Your task to perform on an android device: toggle wifi Image 0: 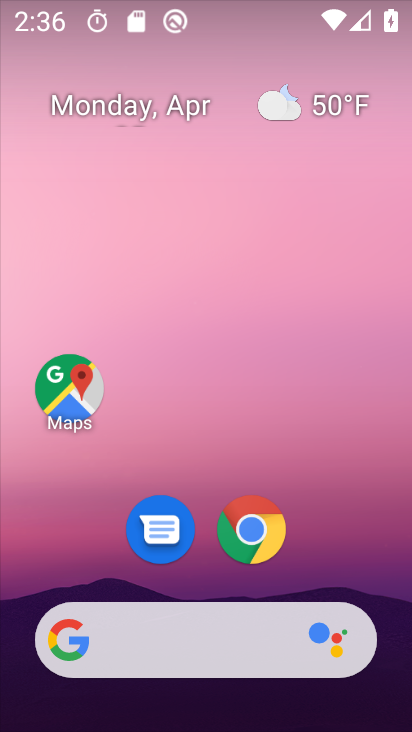
Step 0: click (348, 168)
Your task to perform on an android device: toggle wifi Image 1: 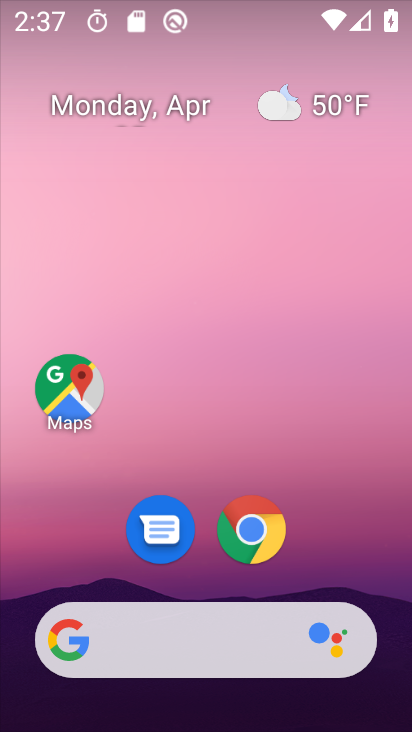
Step 1: drag from (389, 244) to (385, 197)
Your task to perform on an android device: toggle wifi Image 2: 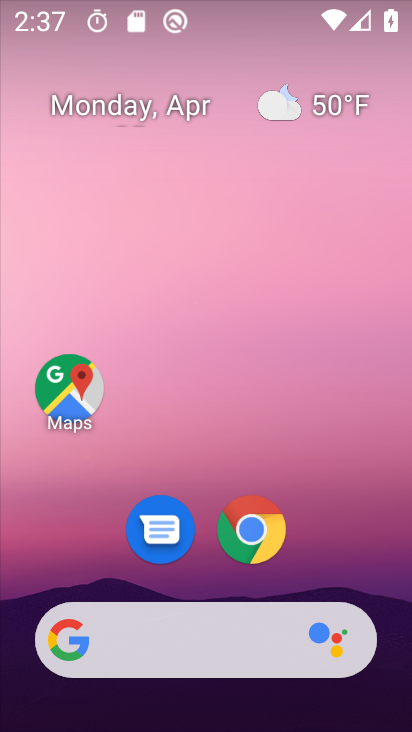
Step 2: drag from (358, 350) to (359, 91)
Your task to perform on an android device: toggle wifi Image 3: 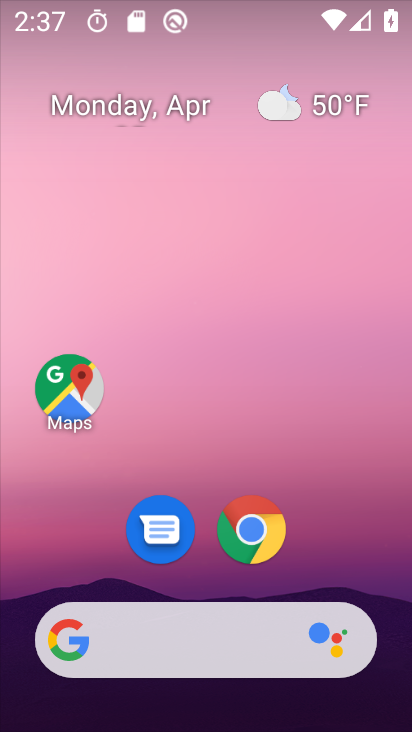
Step 3: drag from (368, 424) to (348, 165)
Your task to perform on an android device: toggle wifi Image 4: 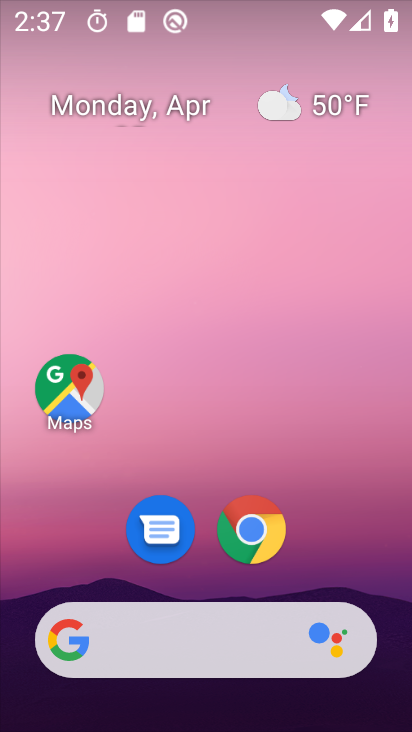
Step 4: drag from (392, 630) to (356, 130)
Your task to perform on an android device: toggle wifi Image 5: 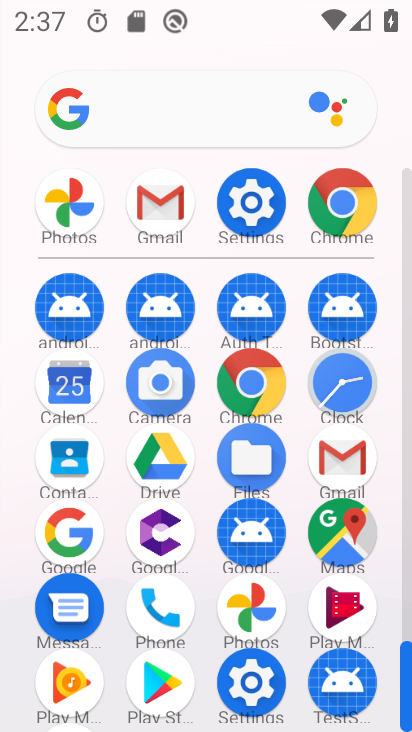
Step 5: click (241, 203)
Your task to perform on an android device: toggle wifi Image 6: 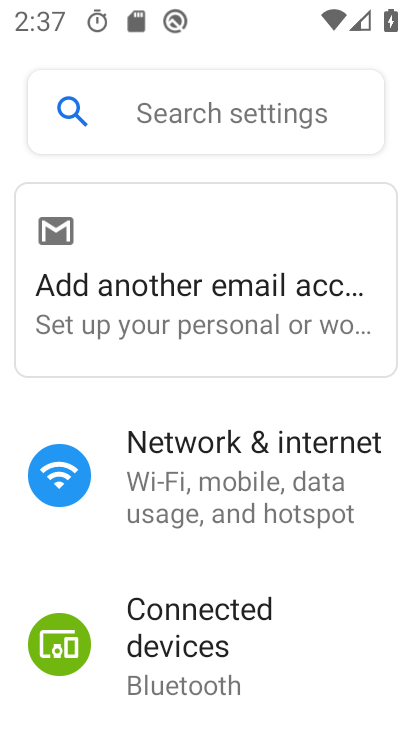
Step 6: click (180, 443)
Your task to perform on an android device: toggle wifi Image 7: 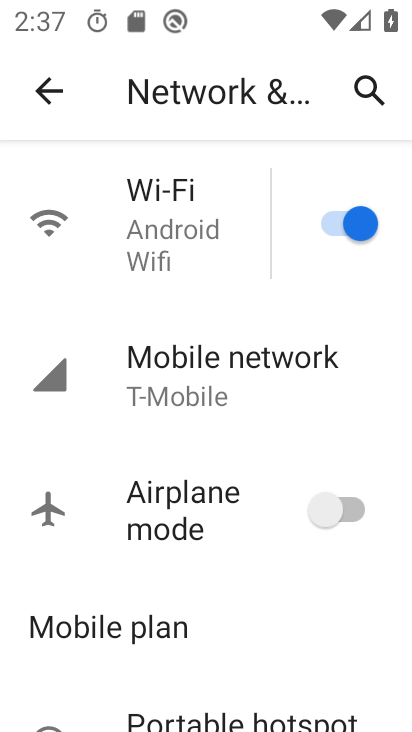
Step 7: task complete